Your task to perform on an android device: Search for hotels in Austin Image 0: 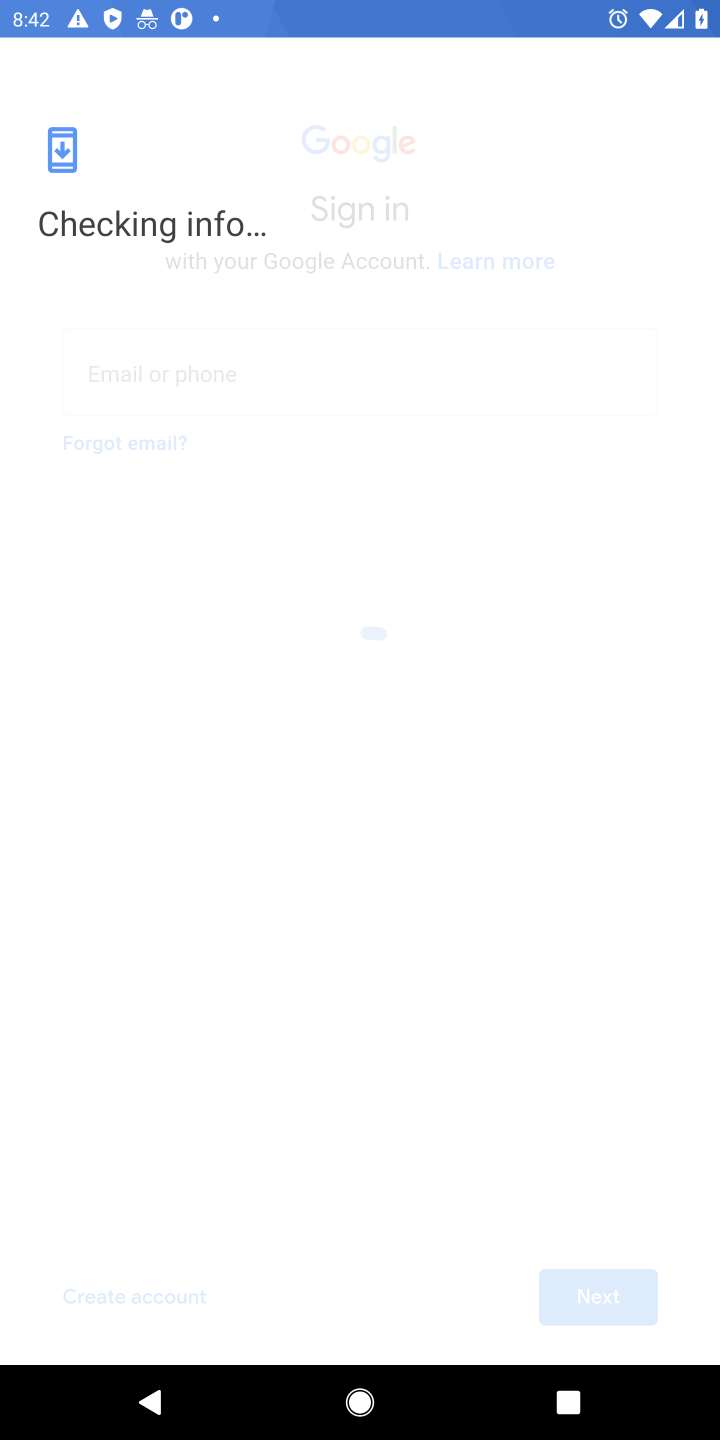
Step 0: press home button
Your task to perform on an android device: Search for hotels in Austin Image 1: 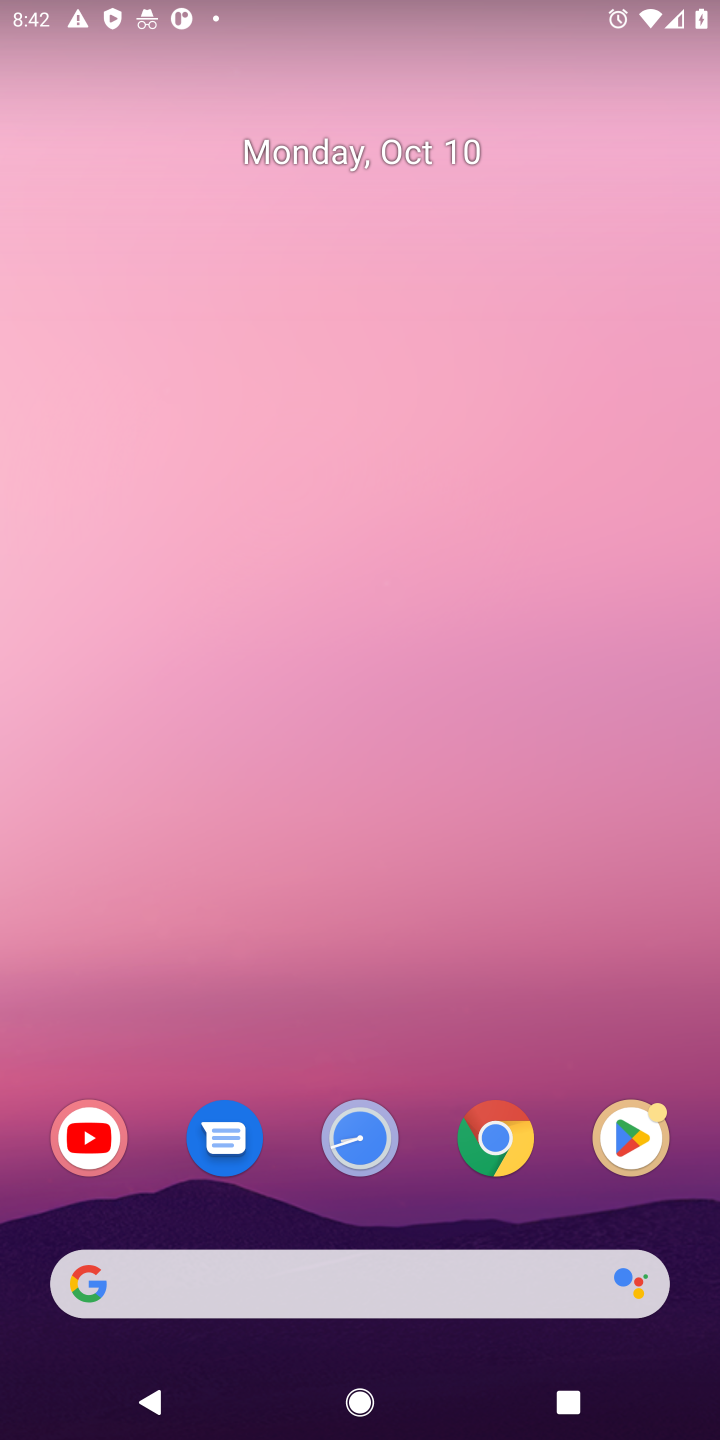
Step 1: click (498, 1141)
Your task to perform on an android device: Search for hotels in Austin Image 2: 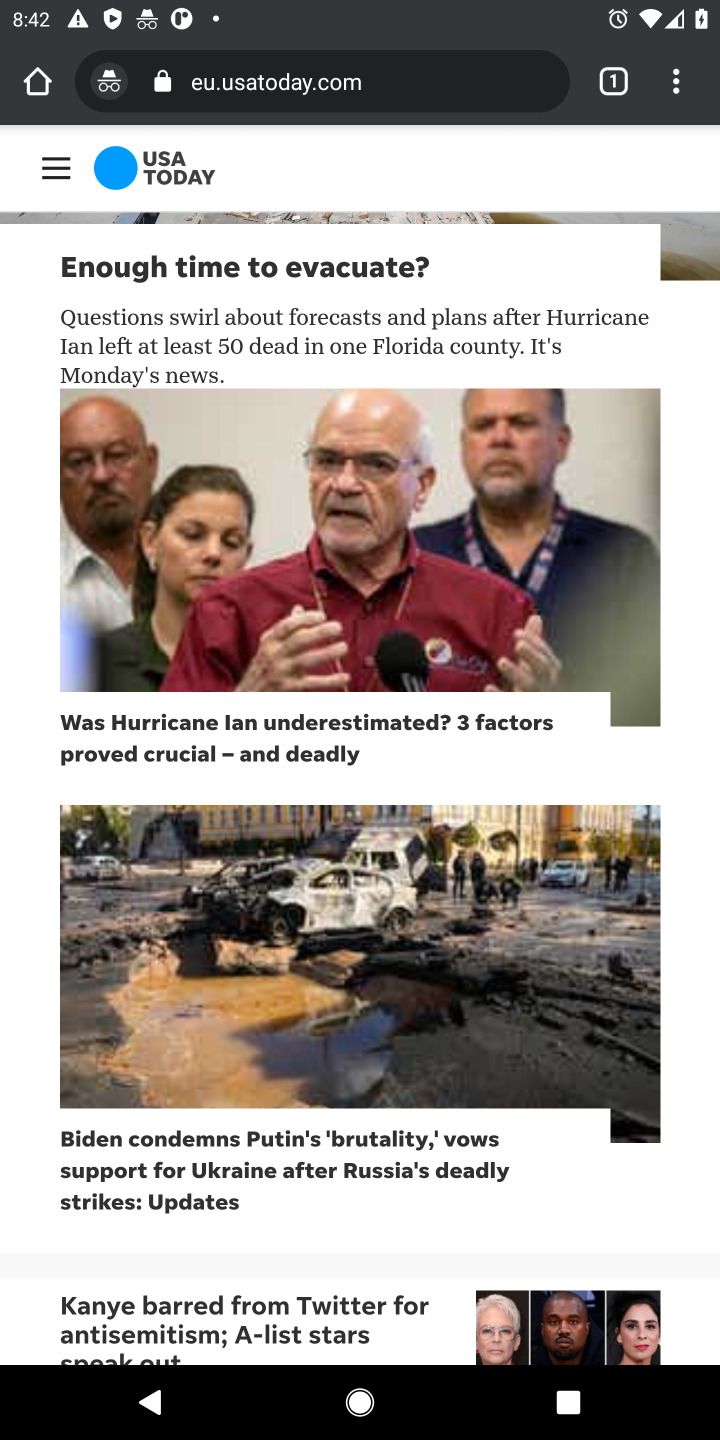
Step 2: click (398, 77)
Your task to perform on an android device: Search for hotels in Austin Image 3: 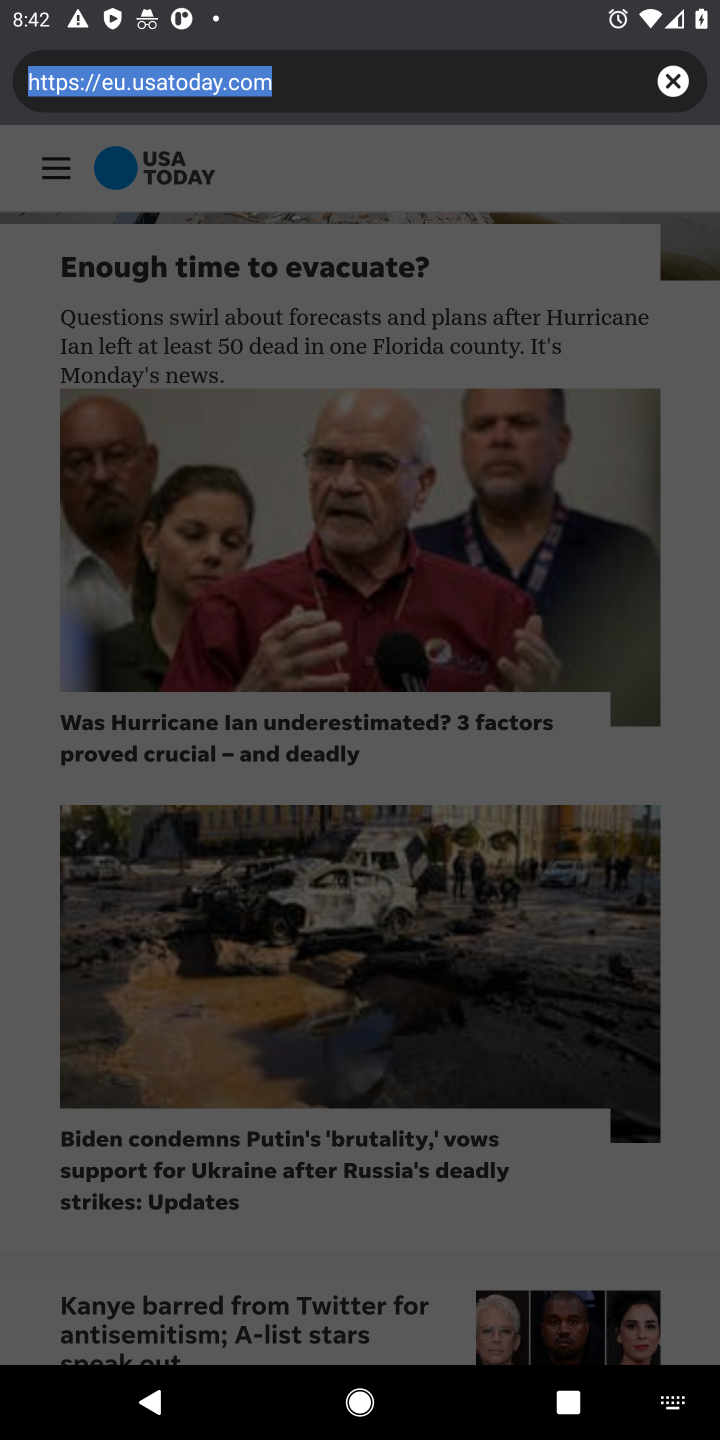
Step 3: click (677, 82)
Your task to perform on an android device: Search for hotels in Austin Image 4: 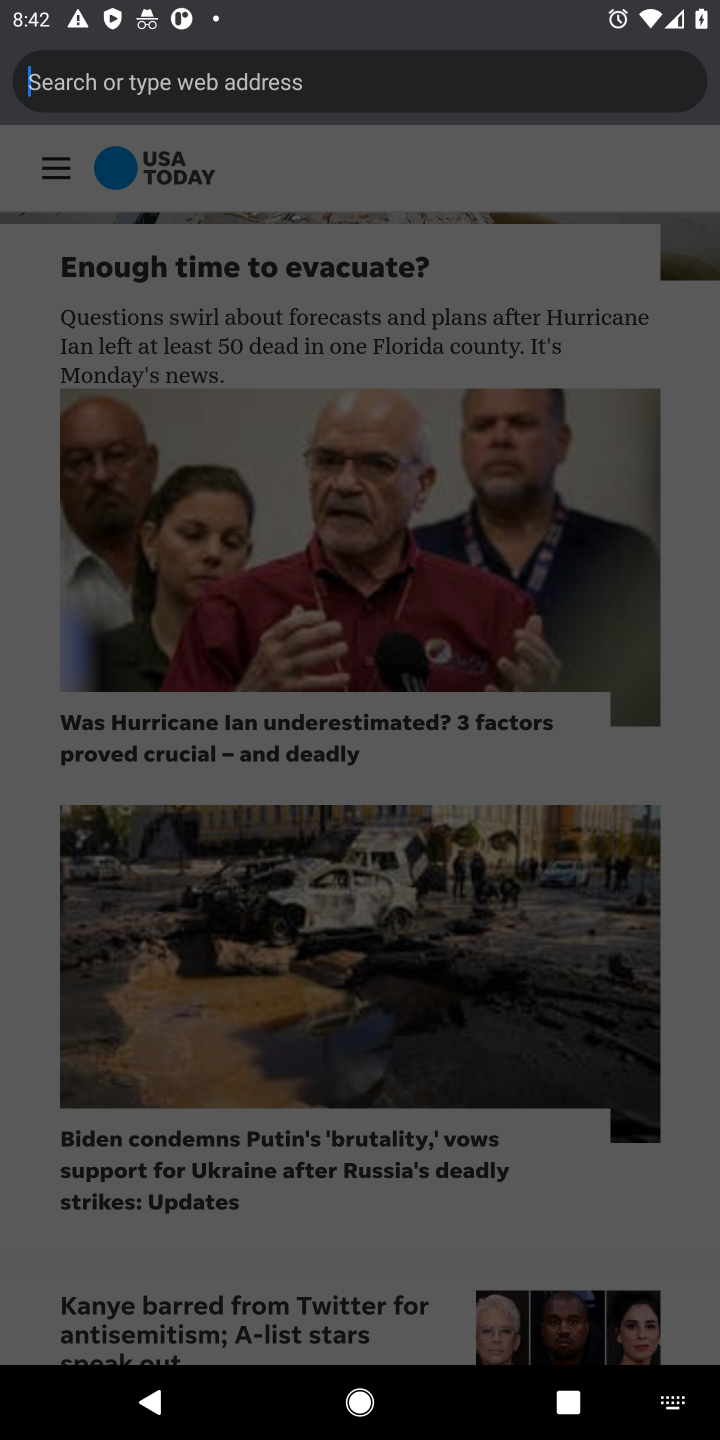
Step 4: click (495, 84)
Your task to perform on an android device: Search for hotels in Austin Image 5: 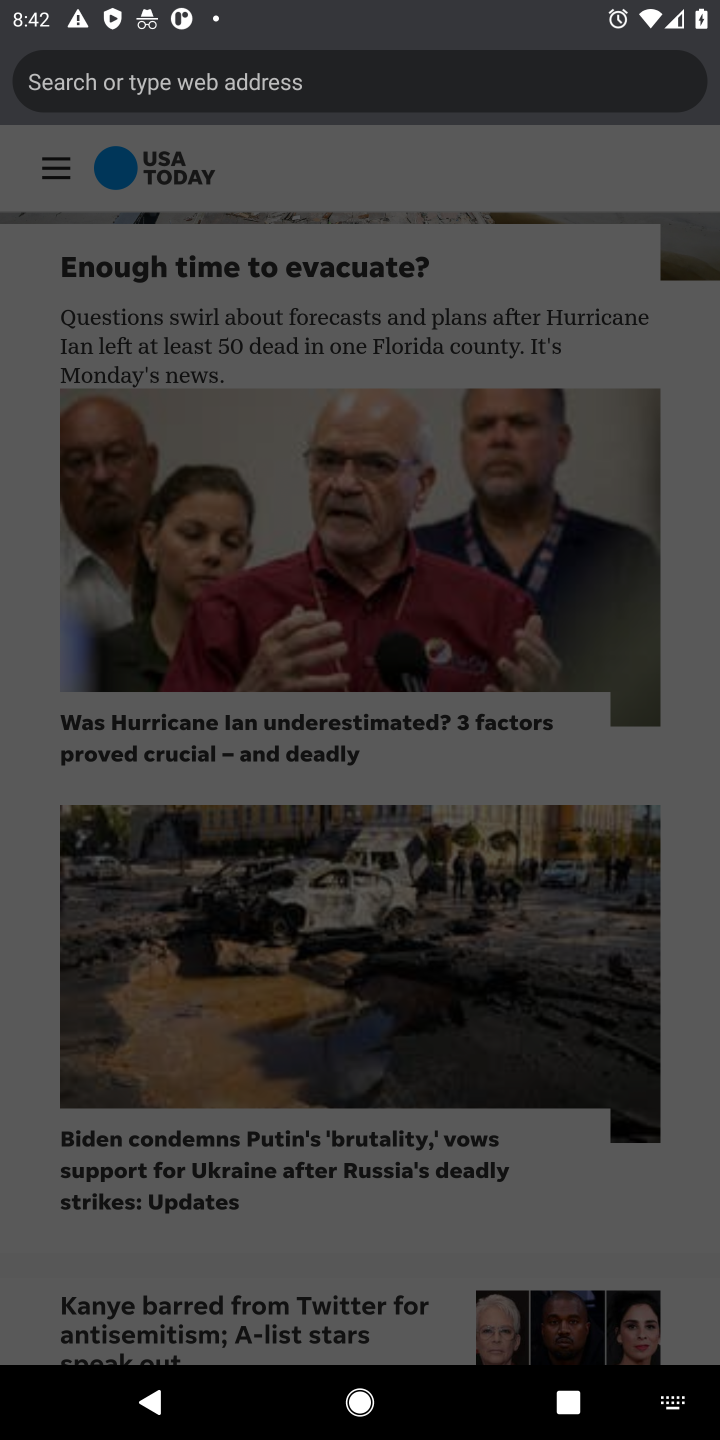
Step 5: type "Hotels in Austin"
Your task to perform on an android device: Search for hotels in Austin Image 6: 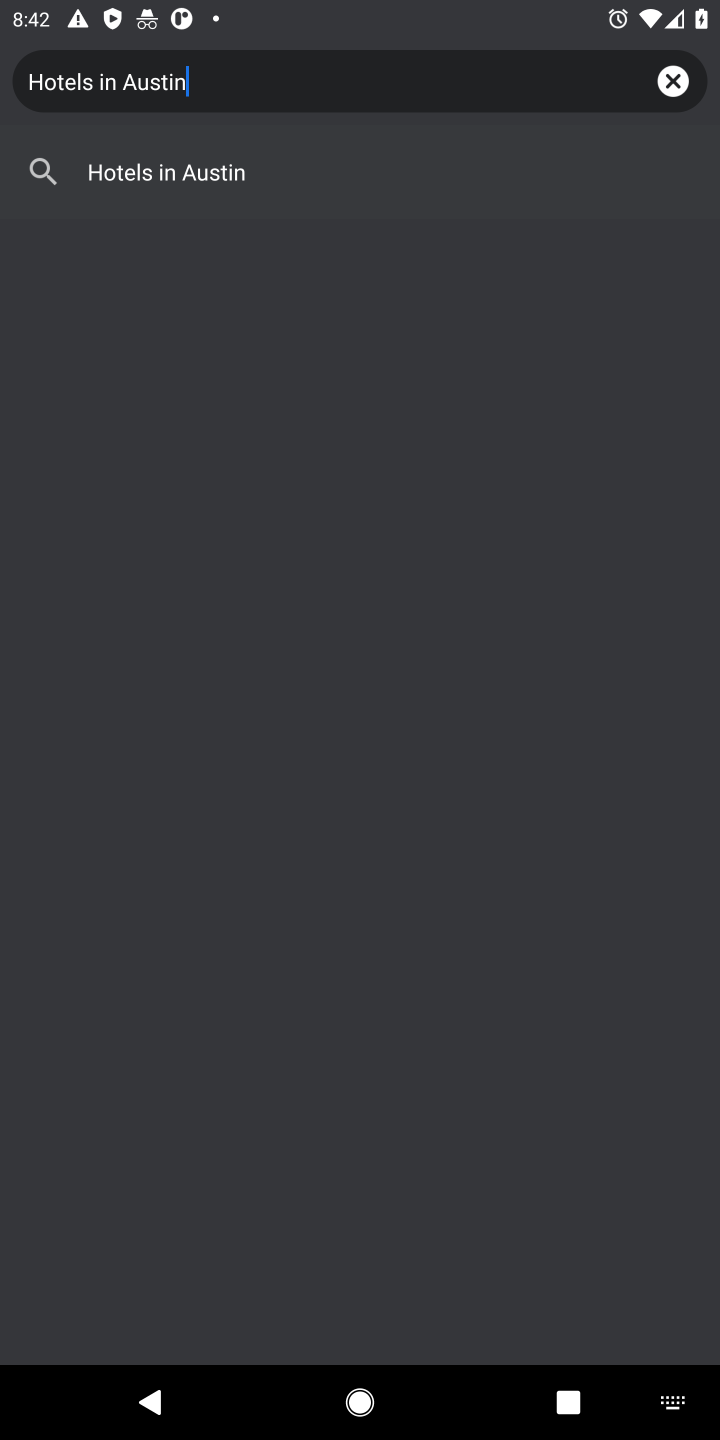
Step 6: click (194, 183)
Your task to perform on an android device: Search for hotels in Austin Image 7: 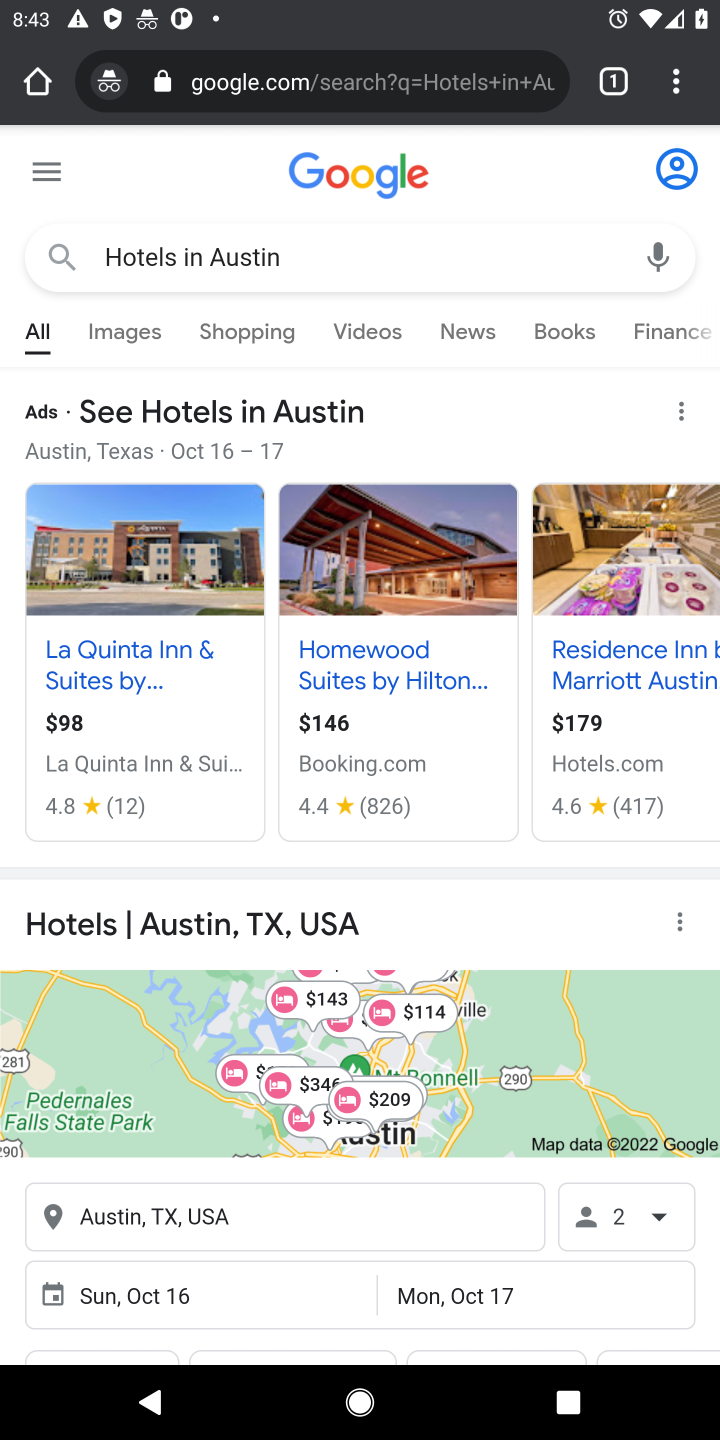
Step 7: task complete